Your task to perform on an android device: Search for "razer nari" on costco.com, select the first entry, and add it to the cart. Image 0: 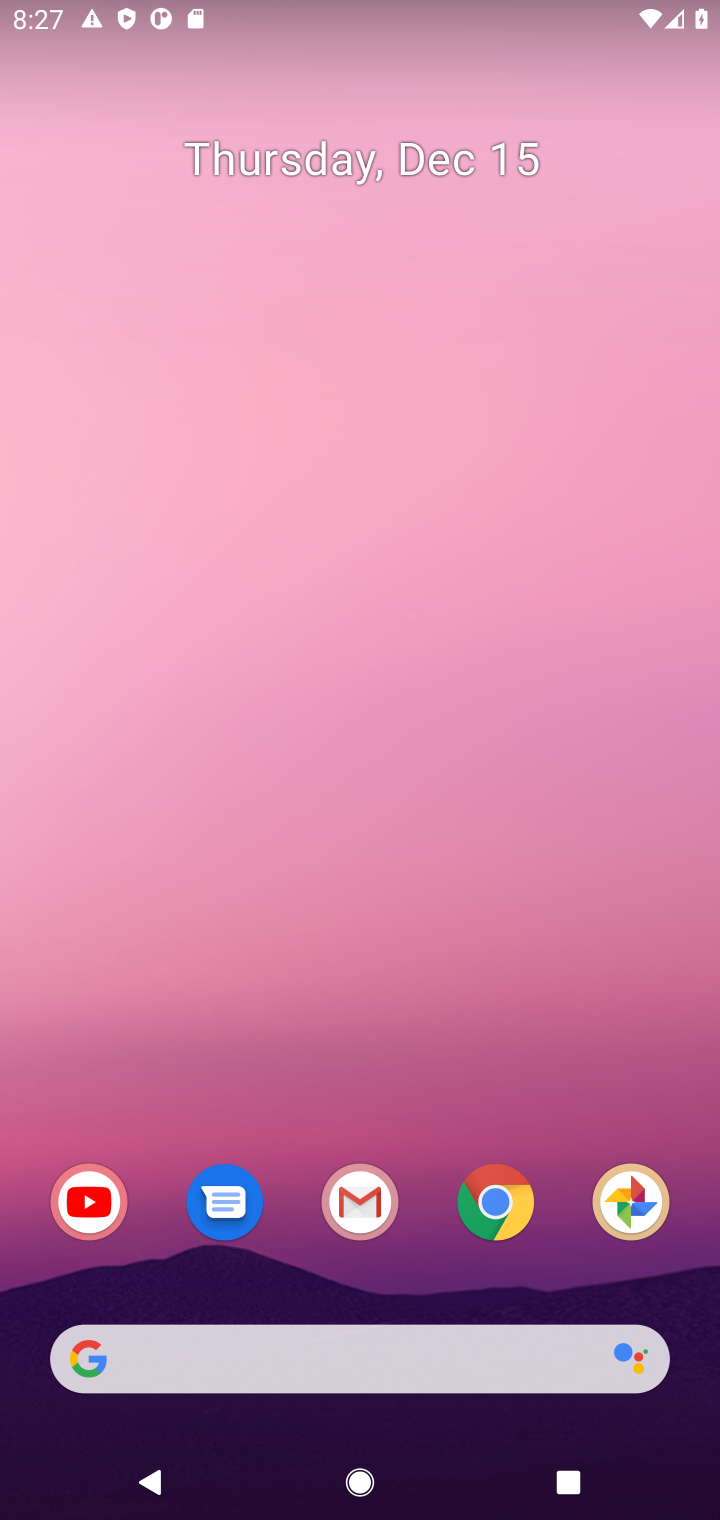
Step 0: click (497, 1228)
Your task to perform on an android device: Search for "razer nari" on costco.com, select the first entry, and add it to the cart. Image 1: 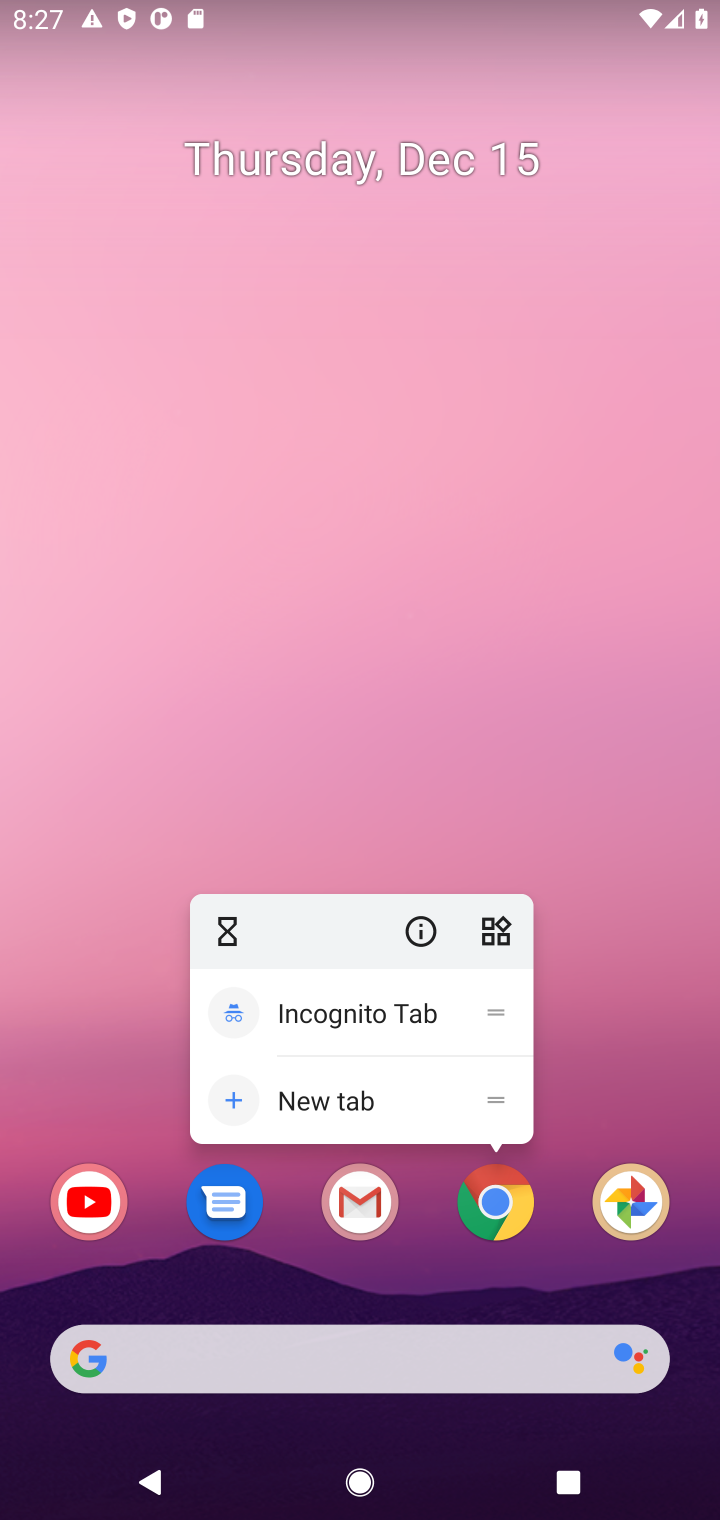
Step 1: click (507, 1219)
Your task to perform on an android device: Search for "razer nari" on costco.com, select the first entry, and add it to the cart. Image 2: 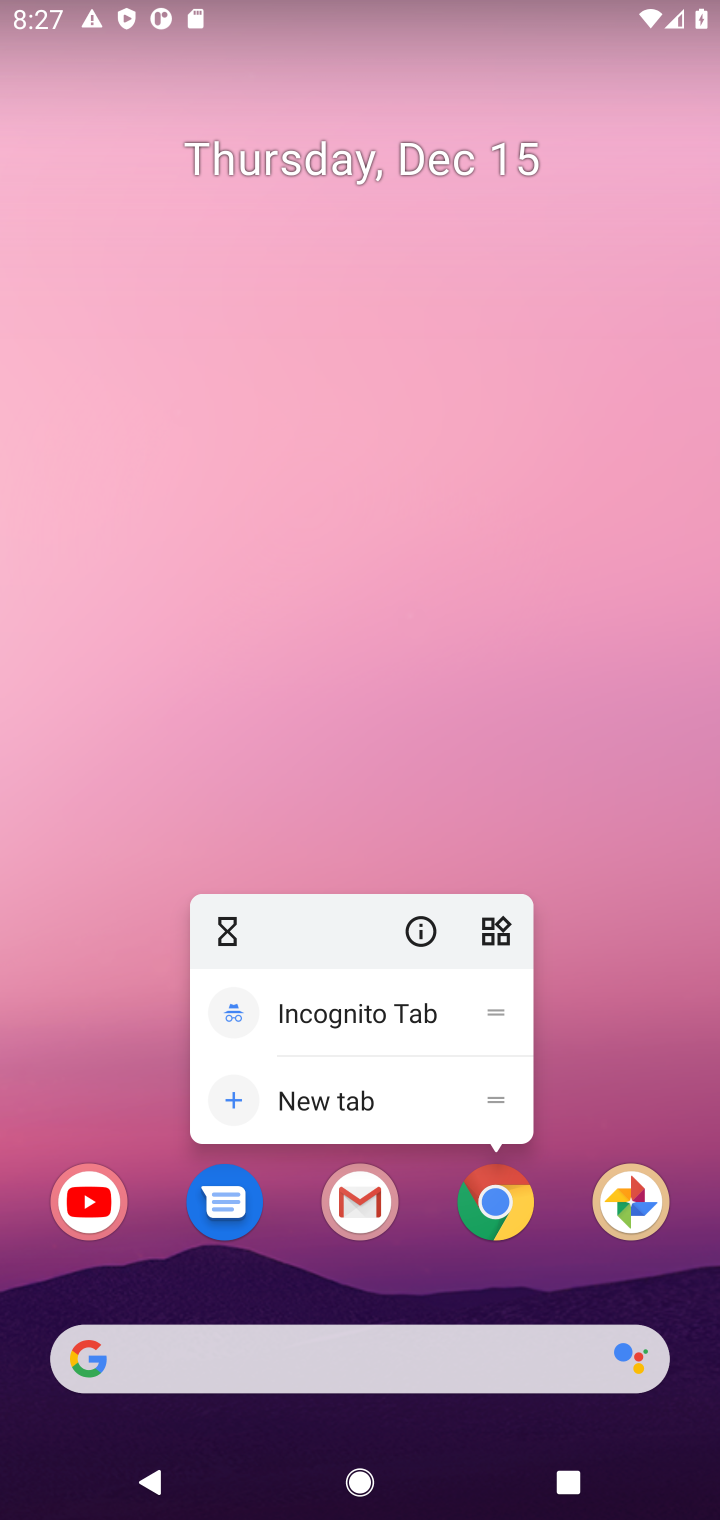
Step 2: click (509, 1216)
Your task to perform on an android device: Search for "razer nari" on costco.com, select the first entry, and add it to the cart. Image 3: 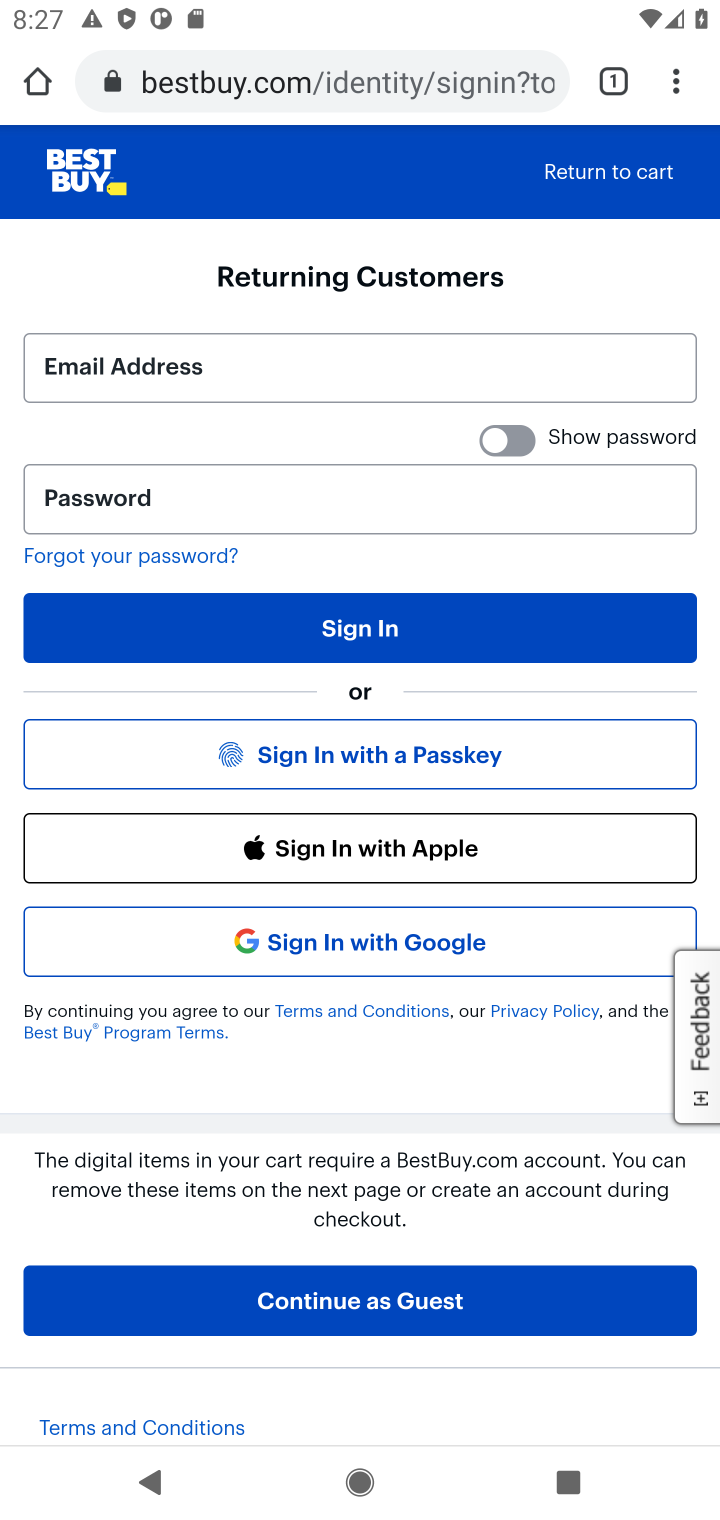
Step 3: click (265, 88)
Your task to perform on an android device: Search for "razer nari" on costco.com, select the first entry, and add it to the cart. Image 4: 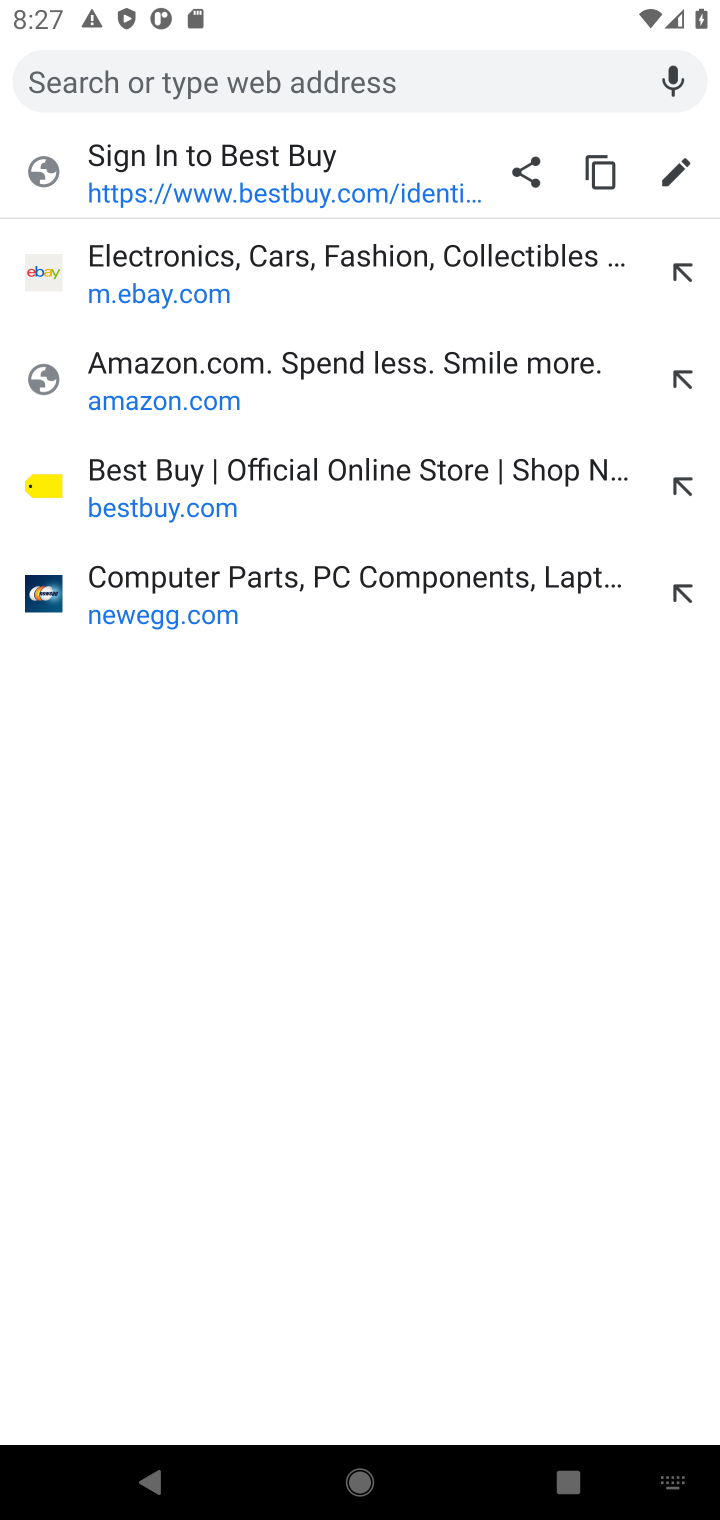
Step 4: type "costco.com"
Your task to perform on an android device: Search for "razer nari" on costco.com, select the first entry, and add it to the cart. Image 5: 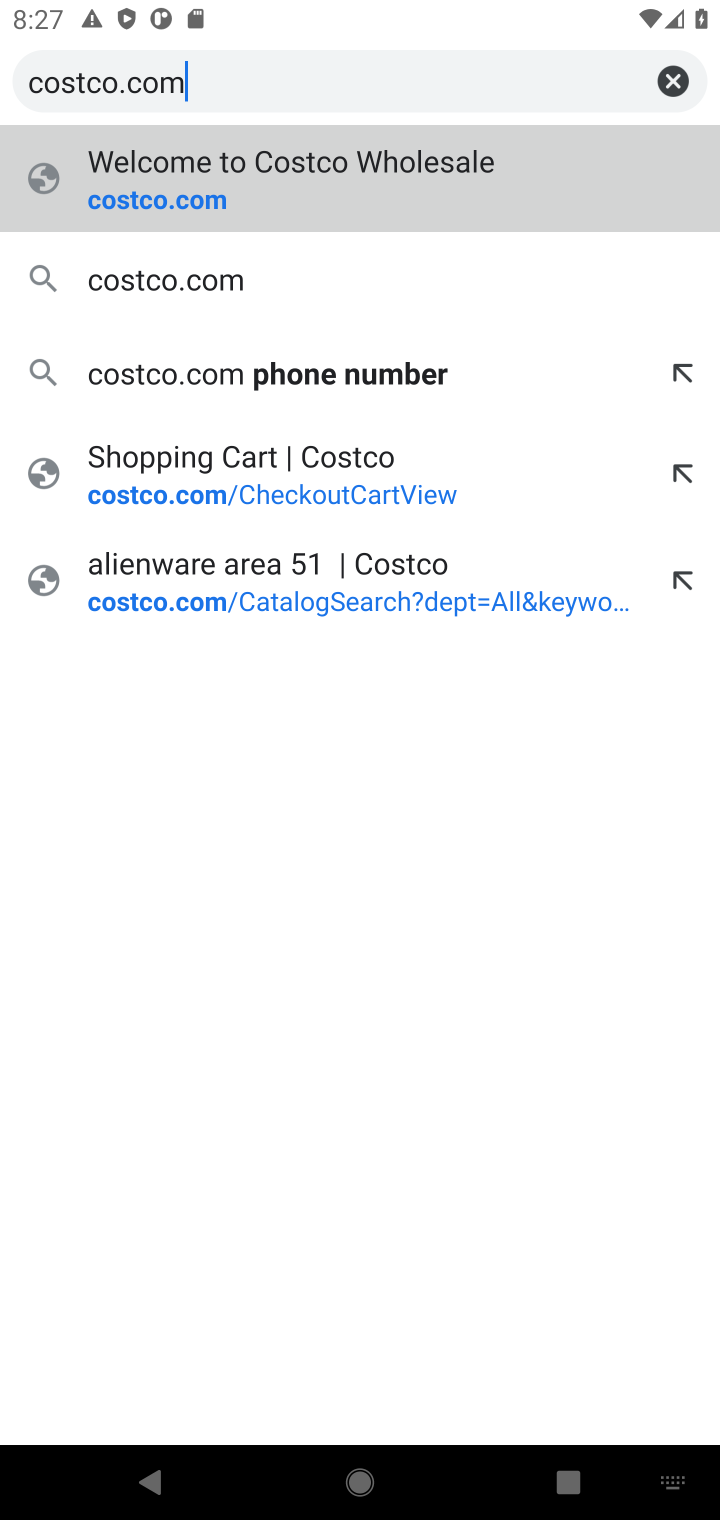
Step 5: click (165, 193)
Your task to perform on an android device: Search for "razer nari" on costco.com, select the first entry, and add it to the cart. Image 6: 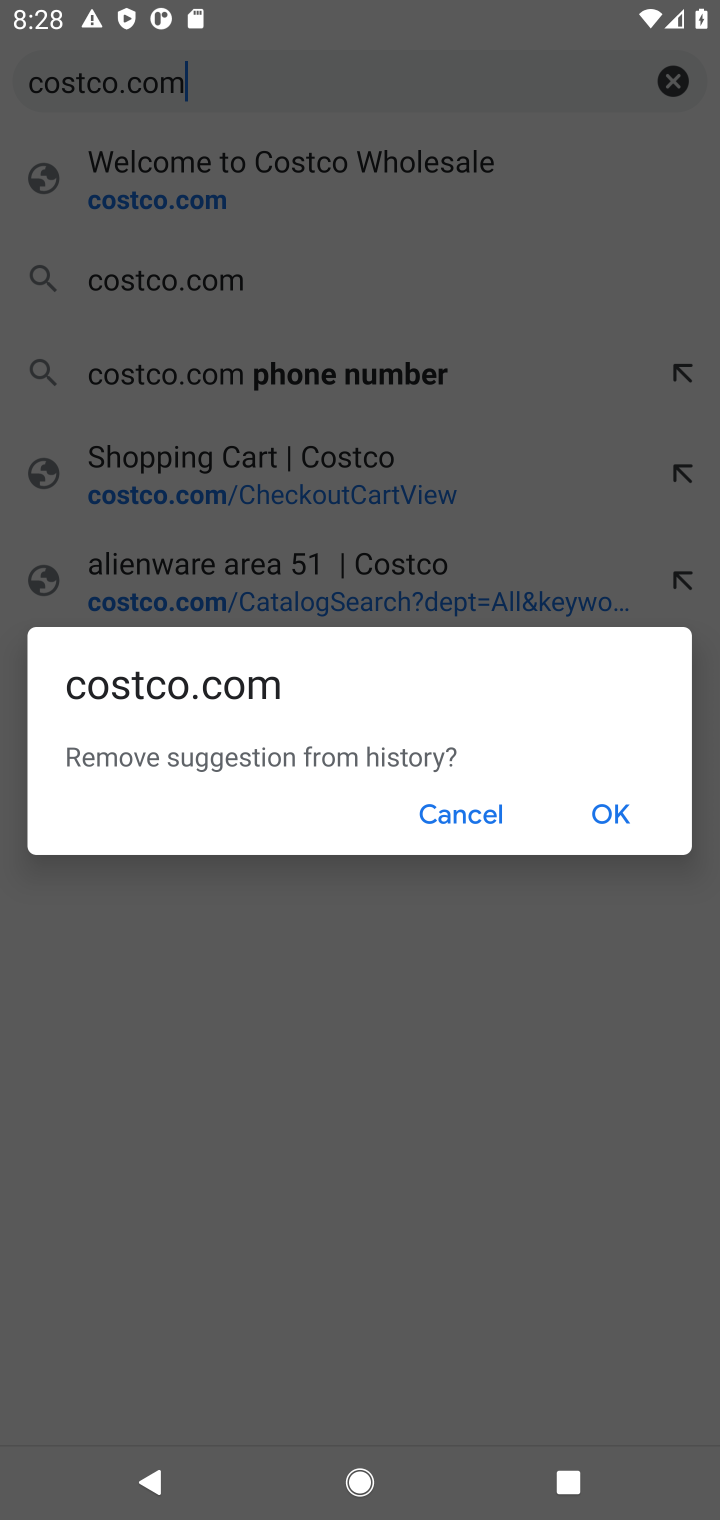
Step 6: click (460, 816)
Your task to perform on an android device: Search for "razer nari" on costco.com, select the first entry, and add it to the cart. Image 7: 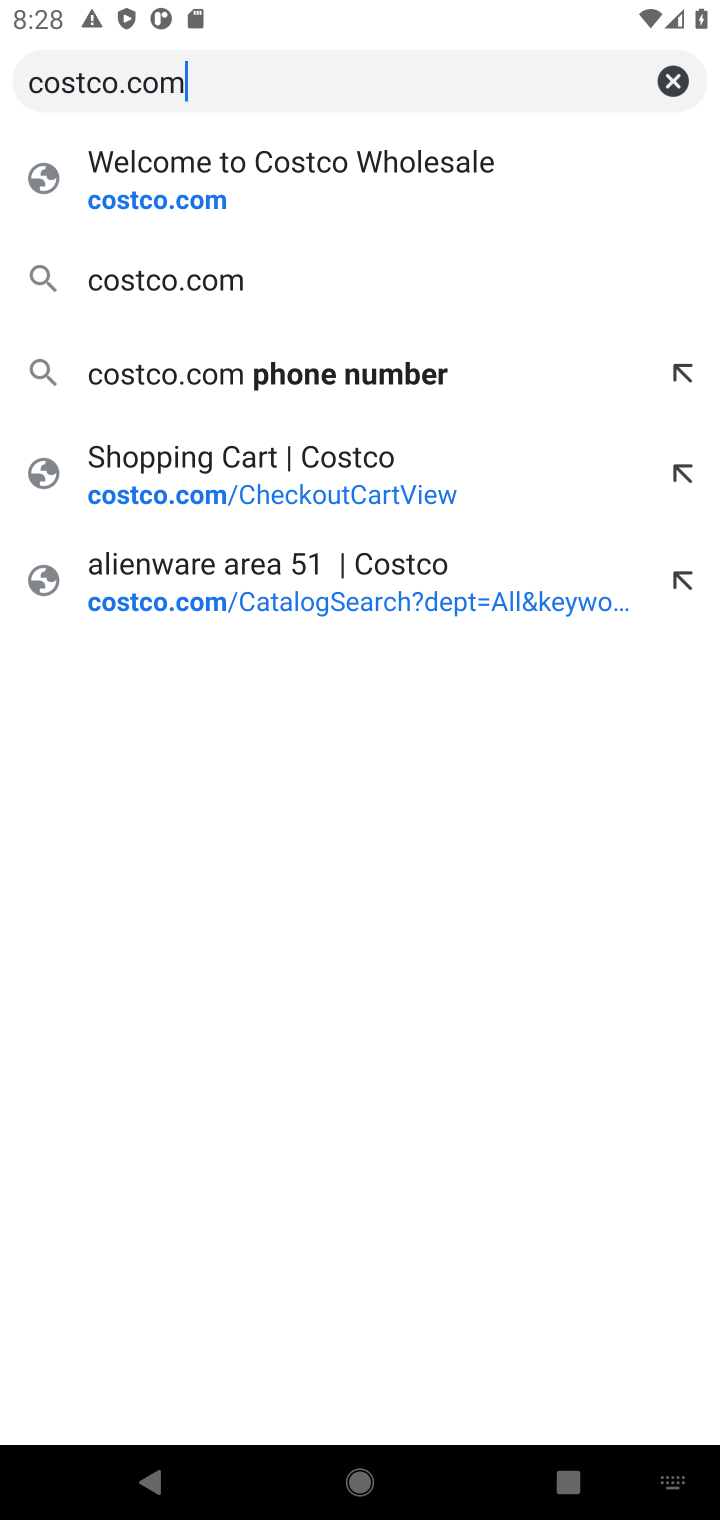
Step 7: click (189, 194)
Your task to perform on an android device: Search for "razer nari" on costco.com, select the first entry, and add it to the cart. Image 8: 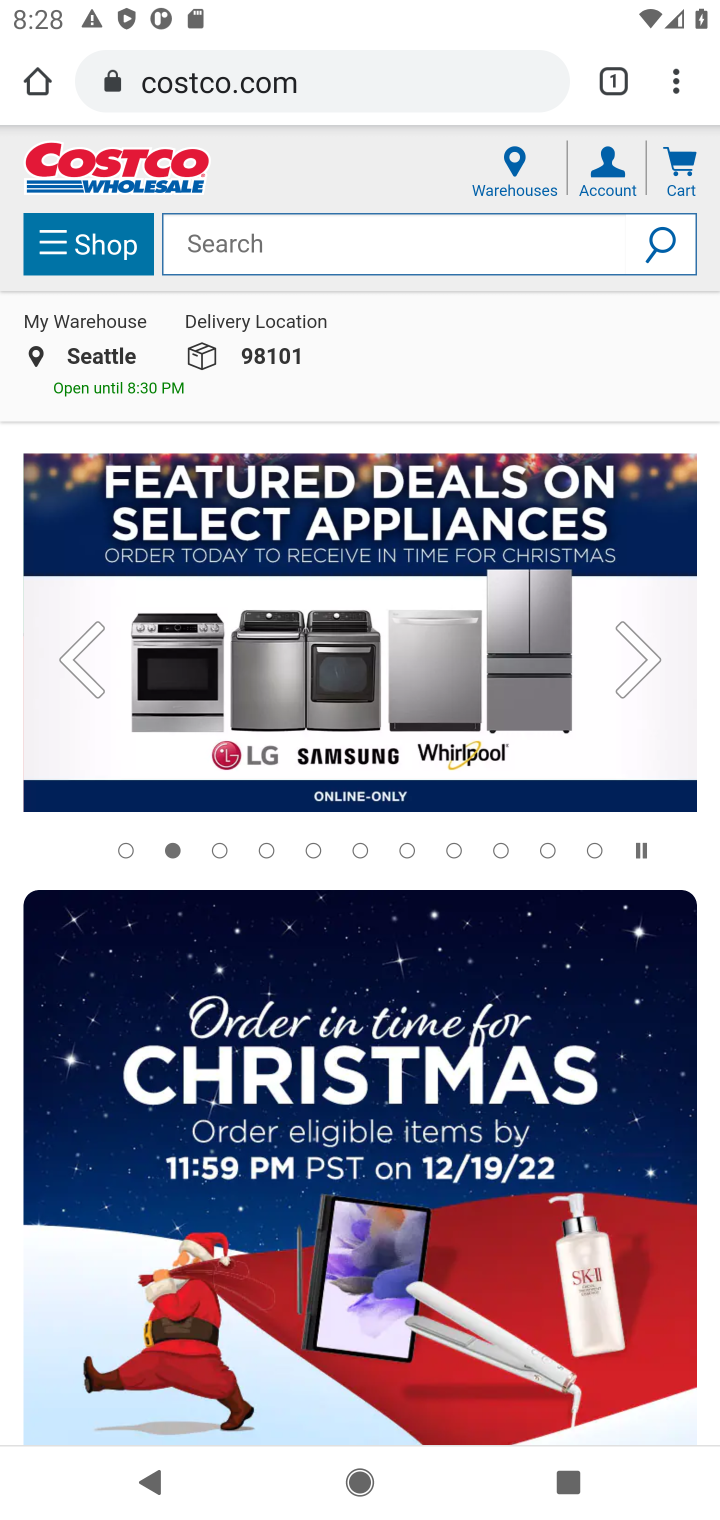
Step 8: click (217, 248)
Your task to perform on an android device: Search for "razer nari" on costco.com, select the first entry, and add it to the cart. Image 9: 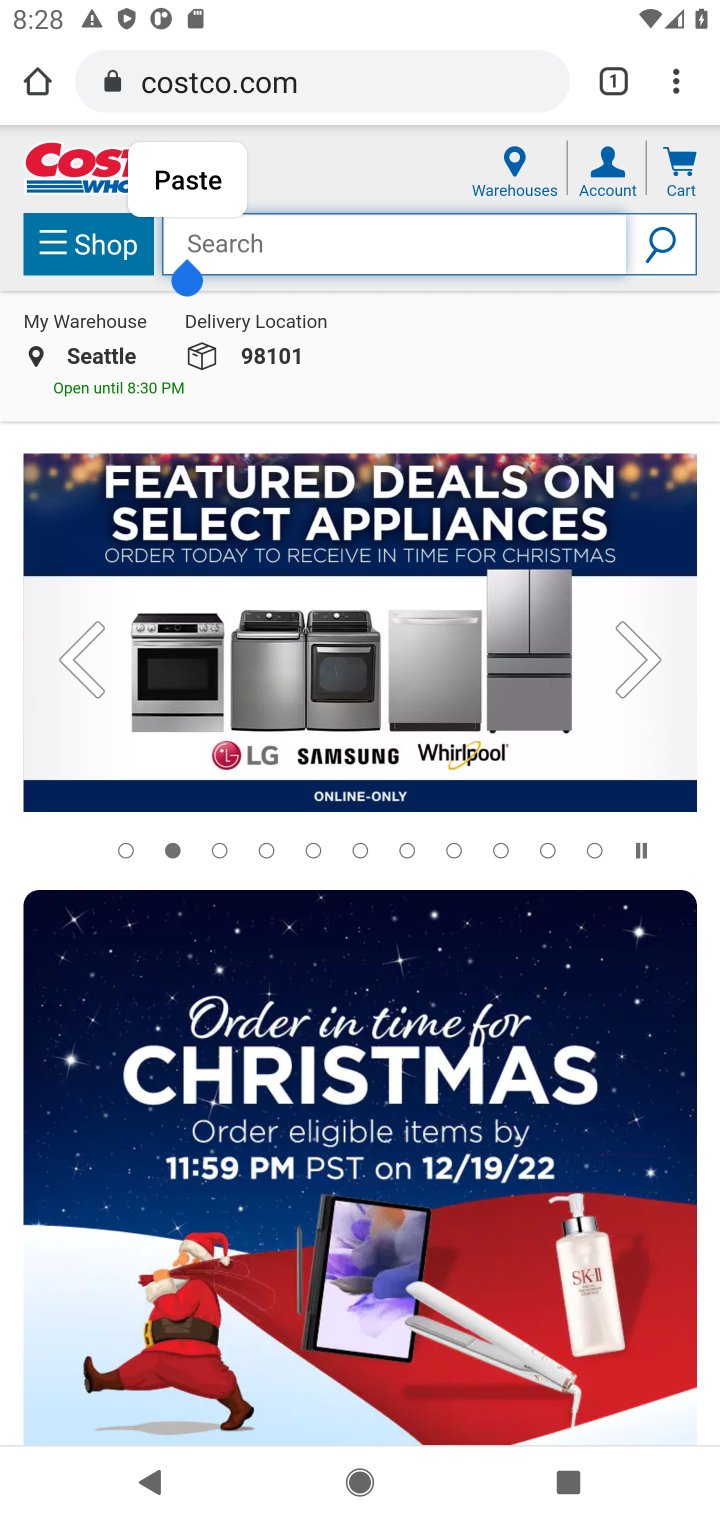
Step 9: type "razer nari"
Your task to perform on an android device: Search for "razer nari" on costco.com, select the first entry, and add it to the cart. Image 10: 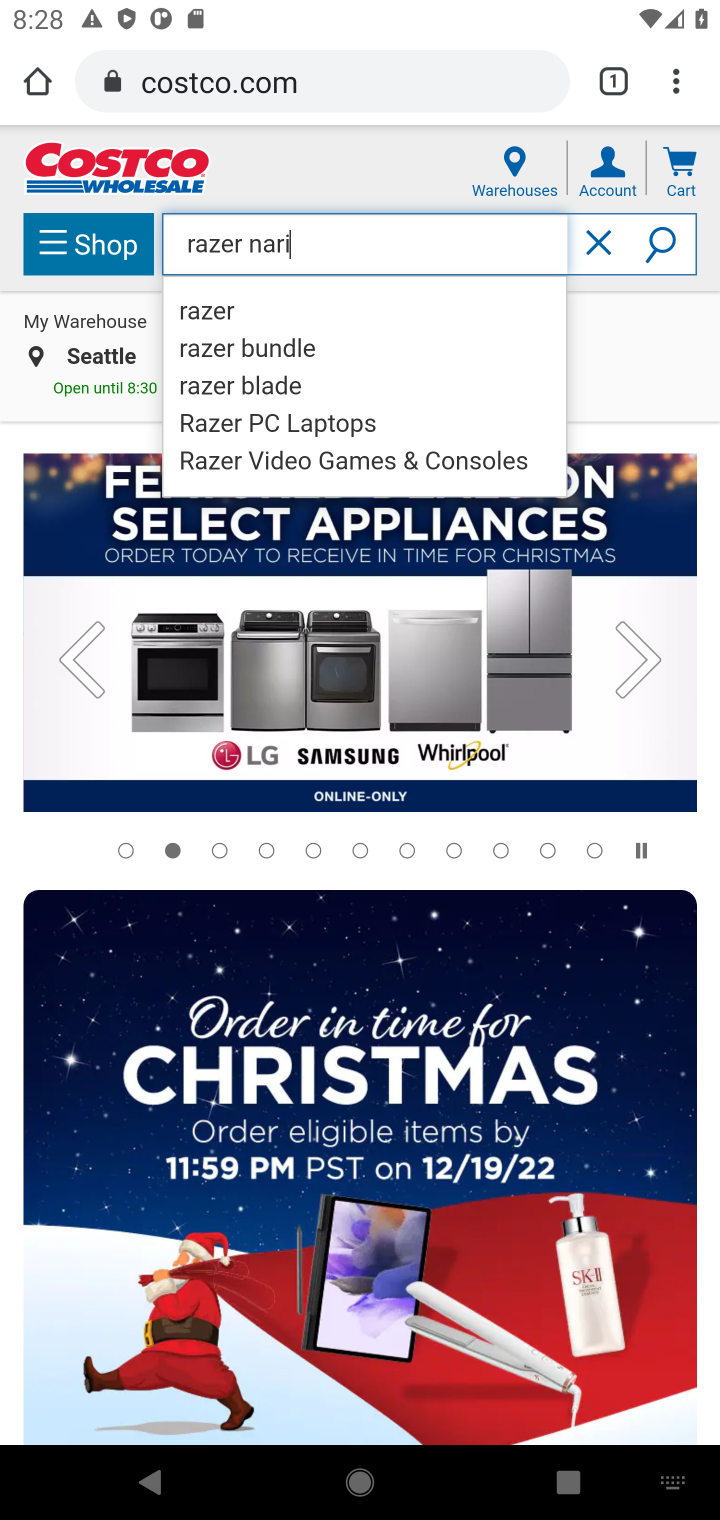
Step 10: click (649, 253)
Your task to perform on an android device: Search for "razer nari" on costco.com, select the first entry, and add it to the cart. Image 11: 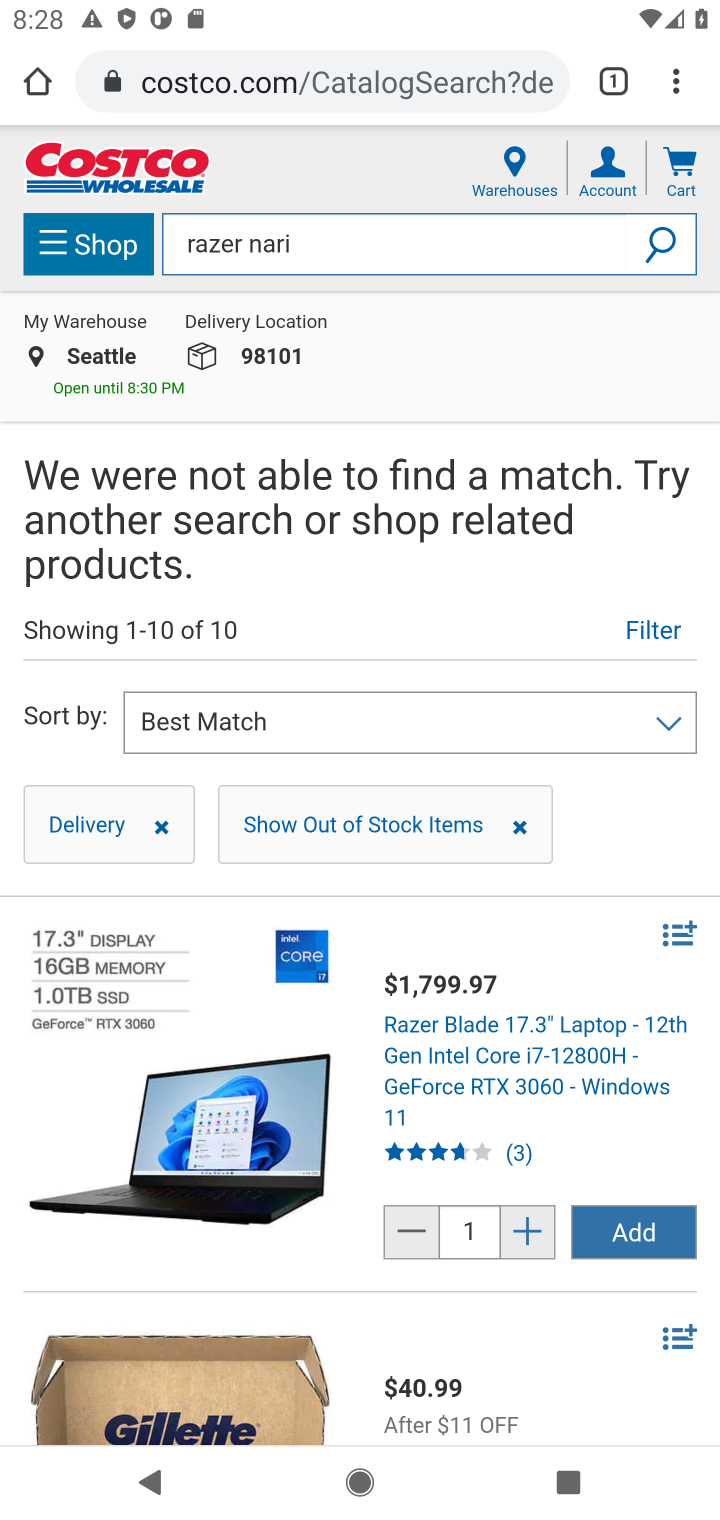
Step 11: task complete